Your task to perform on an android device: Clear all items from cart on newegg. Search for "logitech g903" on newegg, select the first entry, and add it to the cart. Image 0: 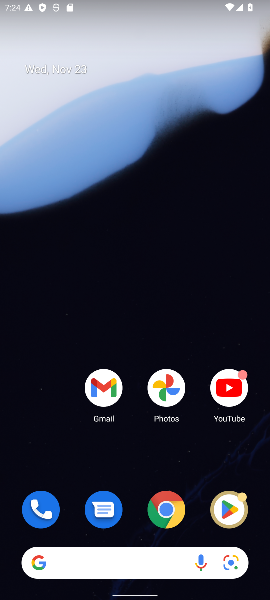
Step 0: click (169, 503)
Your task to perform on an android device: Clear all items from cart on newegg. Search for "logitech g903" on newegg, select the first entry, and add it to the cart. Image 1: 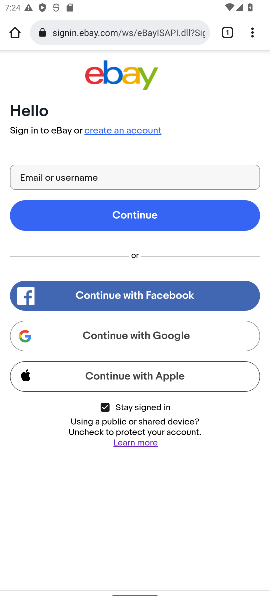
Step 1: click (135, 37)
Your task to perform on an android device: Clear all items from cart on newegg. Search for "logitech g903" on newegg, select the first entry, and add it to the cart. Image 2: 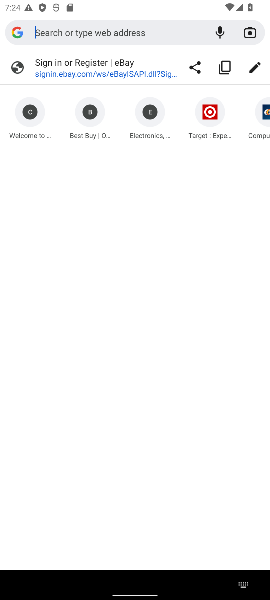
Step 2: press enter
Your task to perform on an android device: Clear all items from cart on newegg. Search for "logitech g903" on newegg, select the first entry, and add it to the cart. Image 3: 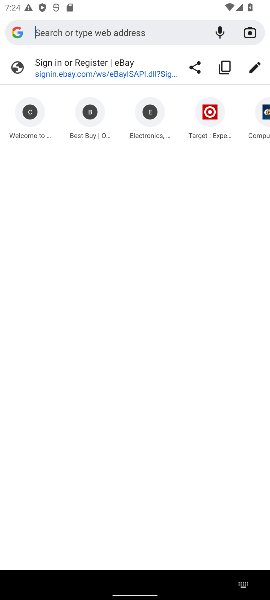
Step 3: type "newegg"
Your task to perform on an android device: Clear all items from cart on newegg. Search for "logitech g903" on newegg, select the first entry, and add it to the cart. Image 4: 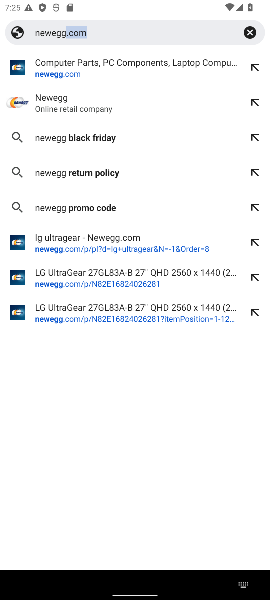
Step 4: click (127, 69)
Your task to perform on an android device: Clear all items from cart on newegg. Search for "logitech g903" on newegg, select the first entry, and add it to the cart. Image 5: 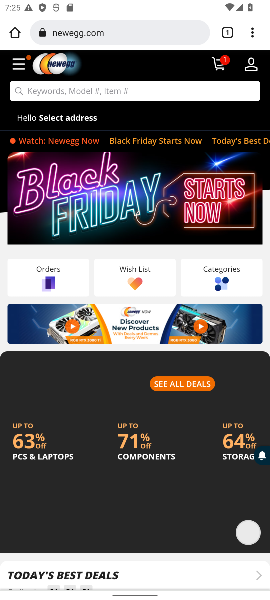
Step 5: click (128, 96)
Your task to perform on an android device: Clear all items from cart on newegg. Search for "logitech g903" on newegg, select the first entry, and add it to the cart. Image 6: 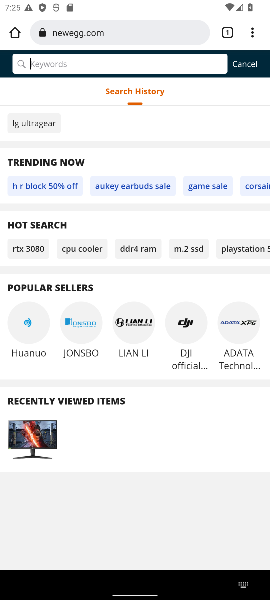
Step 6: type "logitech g903"
Your task to perform on an android device: Clear all items from cart on newegg. Search for "logitech g903" on newegg, select the first entry, and add it to the cart. Image 7: 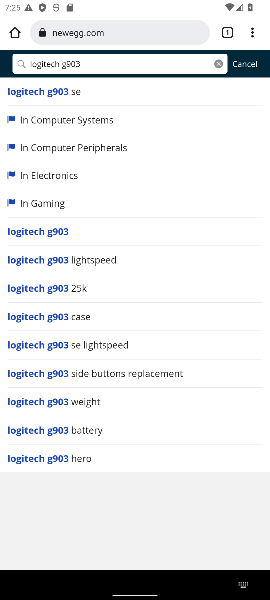
Step 7: press enter
Your task to perform on an android device: Clear all items from cart on newegg. Search for "logitech g903" on newegg, select the first entry, and add it to the cart. Image 8: 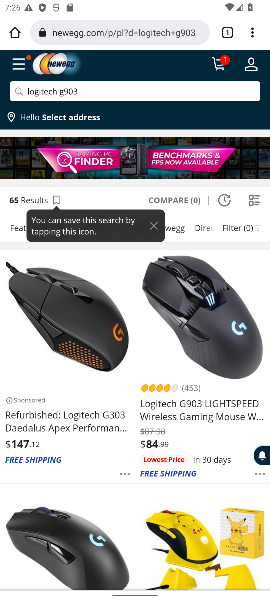
Step 8: drag from (115, 449) to (99, 245)
Your task to perform on an android device: Clear all items from cart on newegg. Search for "logitech g903" on newegg, select the first entry, and add it to the cart. Image 9: 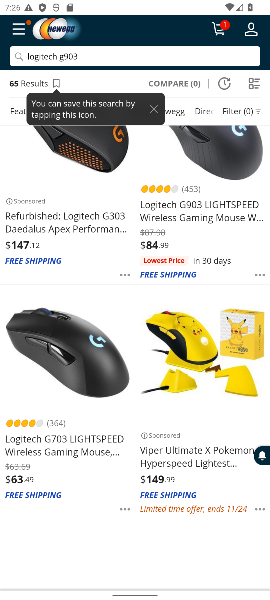
Step 9: click (56, 213)
Your task to perform on an android device: Clear all items from cart on newegg. Search for "logitech g903" on newegg, select the first entry, and add it to the cart. Image 10: 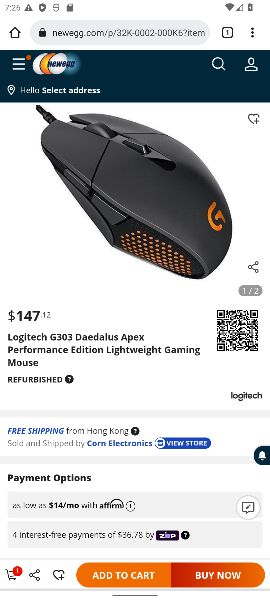
Step 10: click (125, 574)
Your task to perform on an android device: Clear all items from cart on newegg. Search for "logitech g903" on newegg, select the first entry, and add it to the cart. Image 11: 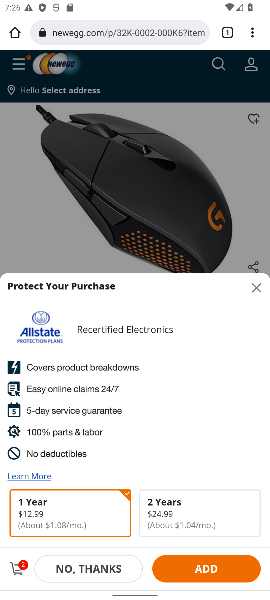
Step 11: task complete